Your task to perform on an android device: change your default location settings in chrome Image 0: 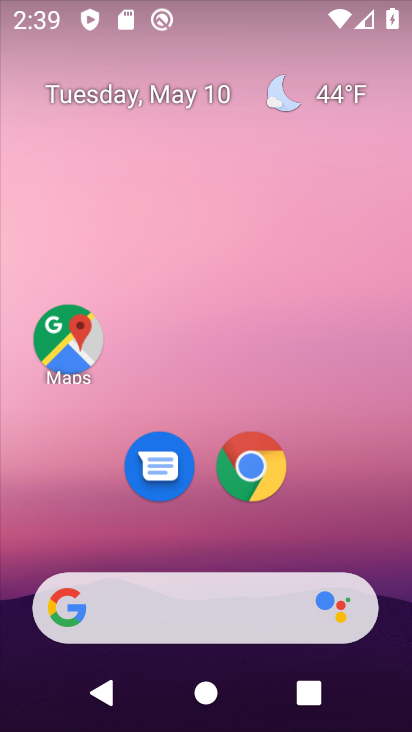
Step 0: click (248, 467)
Your task to perform on an android device: change your default location settings in chrome Image 1: 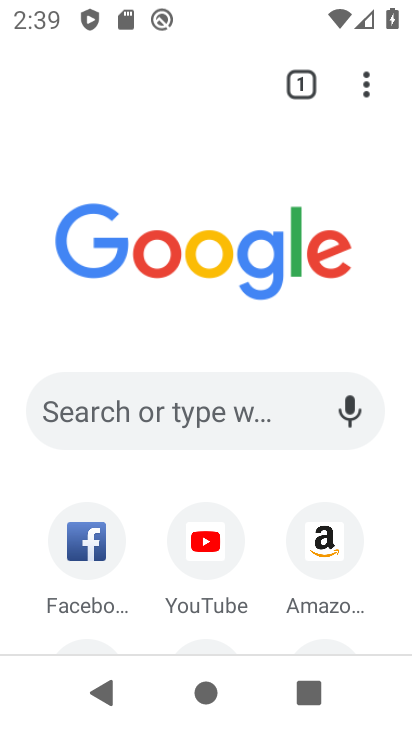
Step 1: click (368, 84)
Your task to perform on an android device: change your default location settings in chrome Image 2: 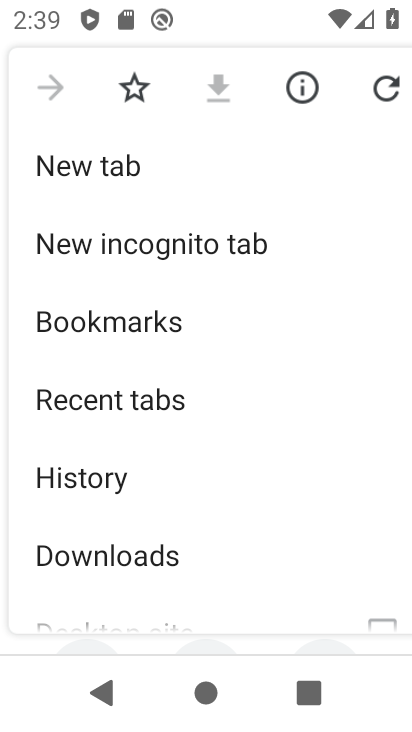
Step 2: drag from (90, 440) to (135, 307)
Your task to perform on an android device: change your default location settings in chrome Image 3: 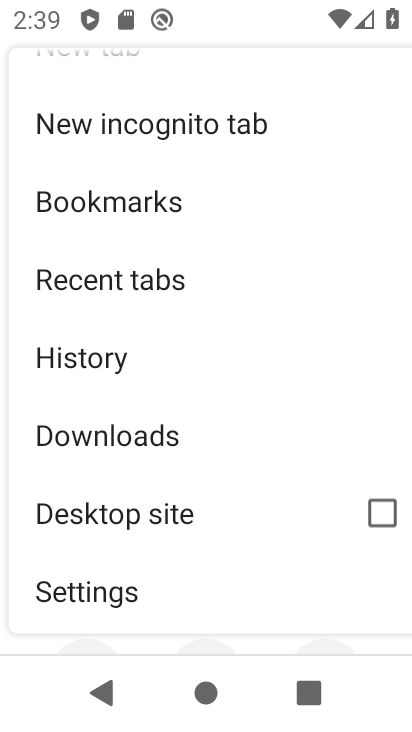
Step 3: drag from (140, 550) to (218, 361)
Your task to perform on an android device: change your default location settings in chrome Image 4: 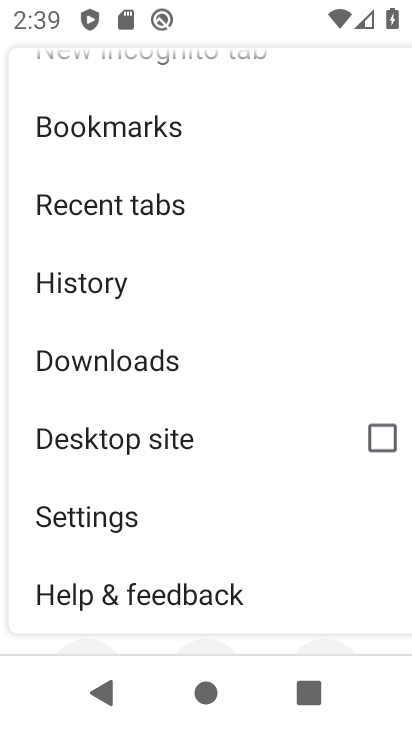
Step 4: click (81, 519)
Your task to perform on an android device: change your default location settings in chrome Image 5: 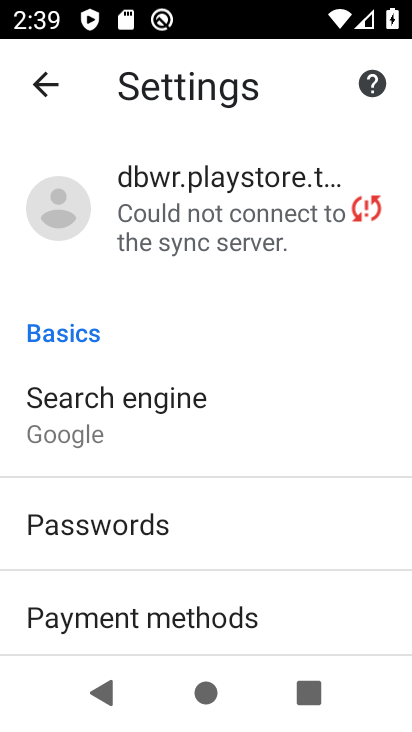
Step 5: drag from (172, 449) to (200, 320)
Your task to perform on an android device: change your default location settings in chrome Image 6: 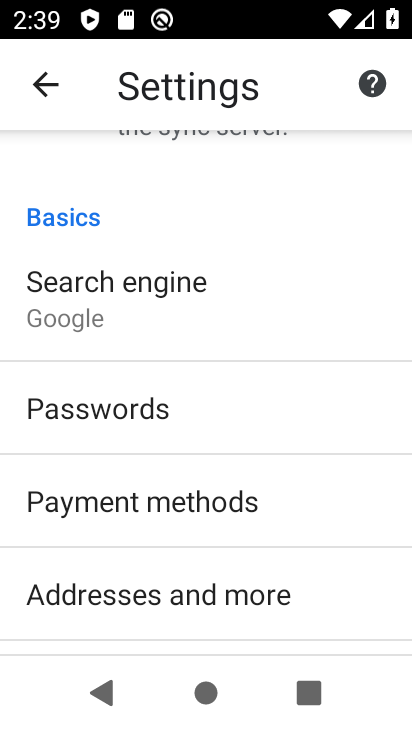
Step 6: drag from (164, 480) to (212, 327)
Your task to perform on an android device: change your default location settings in chrome Image 7: 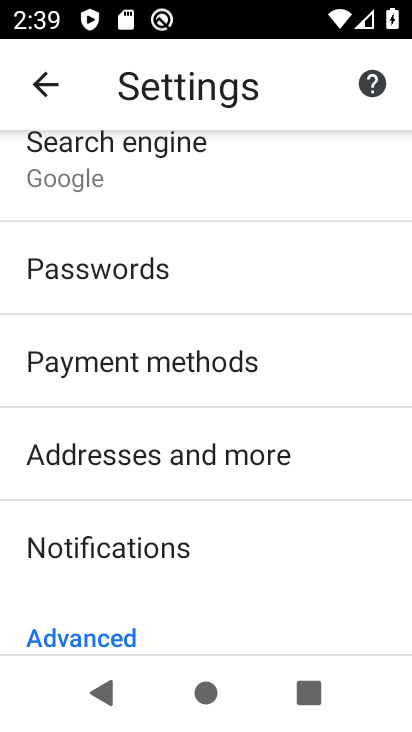
Step 7: drag from (175, 489) to (225, 359)
Your task to perform on an android device: change your default location settings in chrome Image 8: 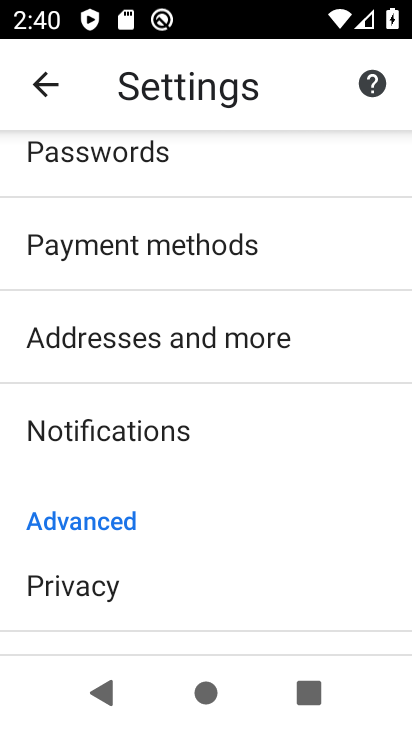
Step 8: drag from (148, 563) to (205, 372)
Your task to perform on an android device: change your default location settings in chrome Image 9: 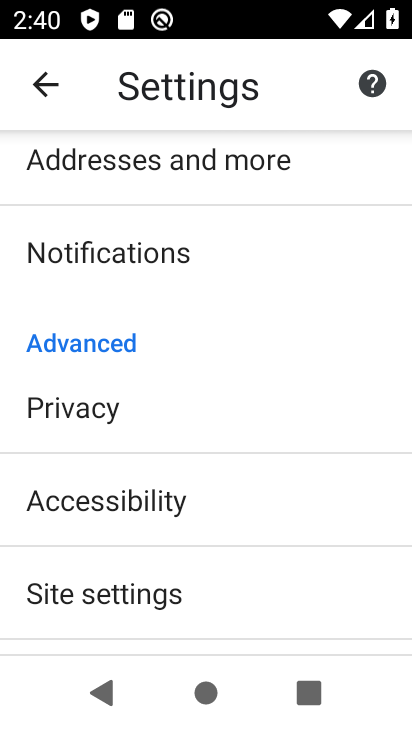
Step 9: click (110, 592)
Your task to perform on an android device: change your default location settings in chrome Image 10: 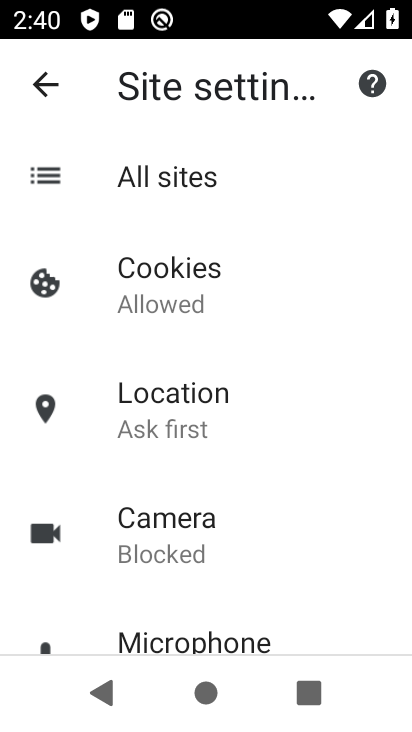
Step 10: drag from (204, 489) to (212, 330)
Your task to perform on an android device: change your default location settings in chrome Image 11: 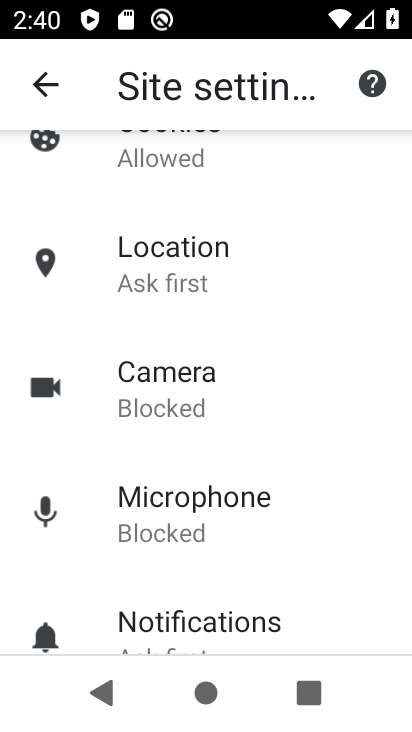
Step 11: click (182, 252)
Your task to perform on an android device: change your default location settings in chrome Image 12: 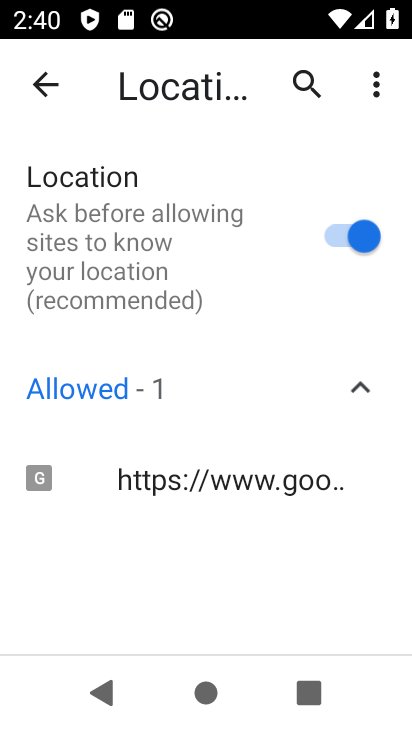
Step 12: click (353, 243)
Your task to perform on an android device: change your default location settings in chrome Image 13: 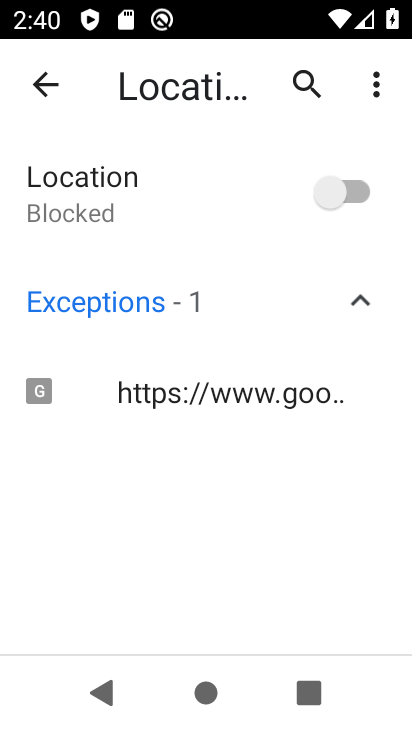
Step 13: task complete